Your task to perform on an android device: turn off priority inbox in the gmail app Image 0: 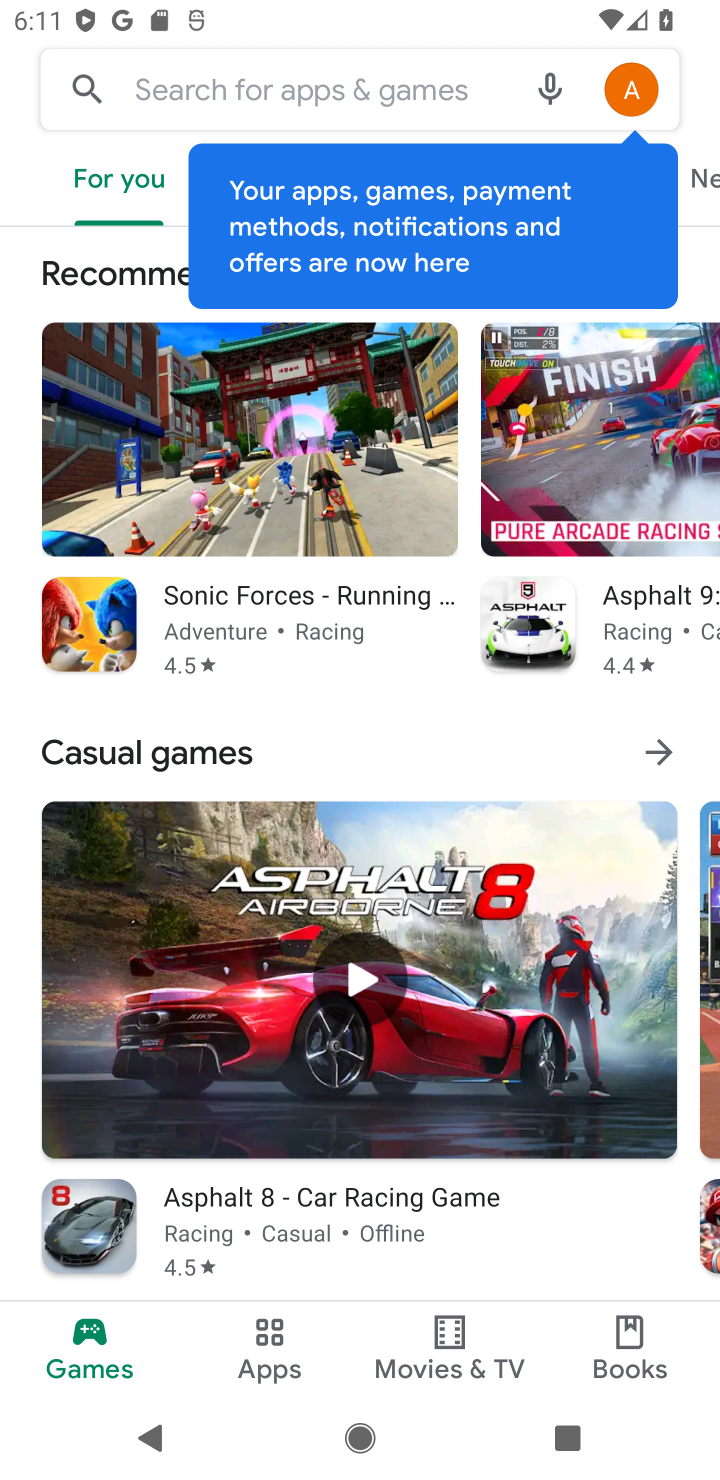
Step 0: press home button
Your task to perform on an android device: turn off priority inbox in the gmail app Image 1: 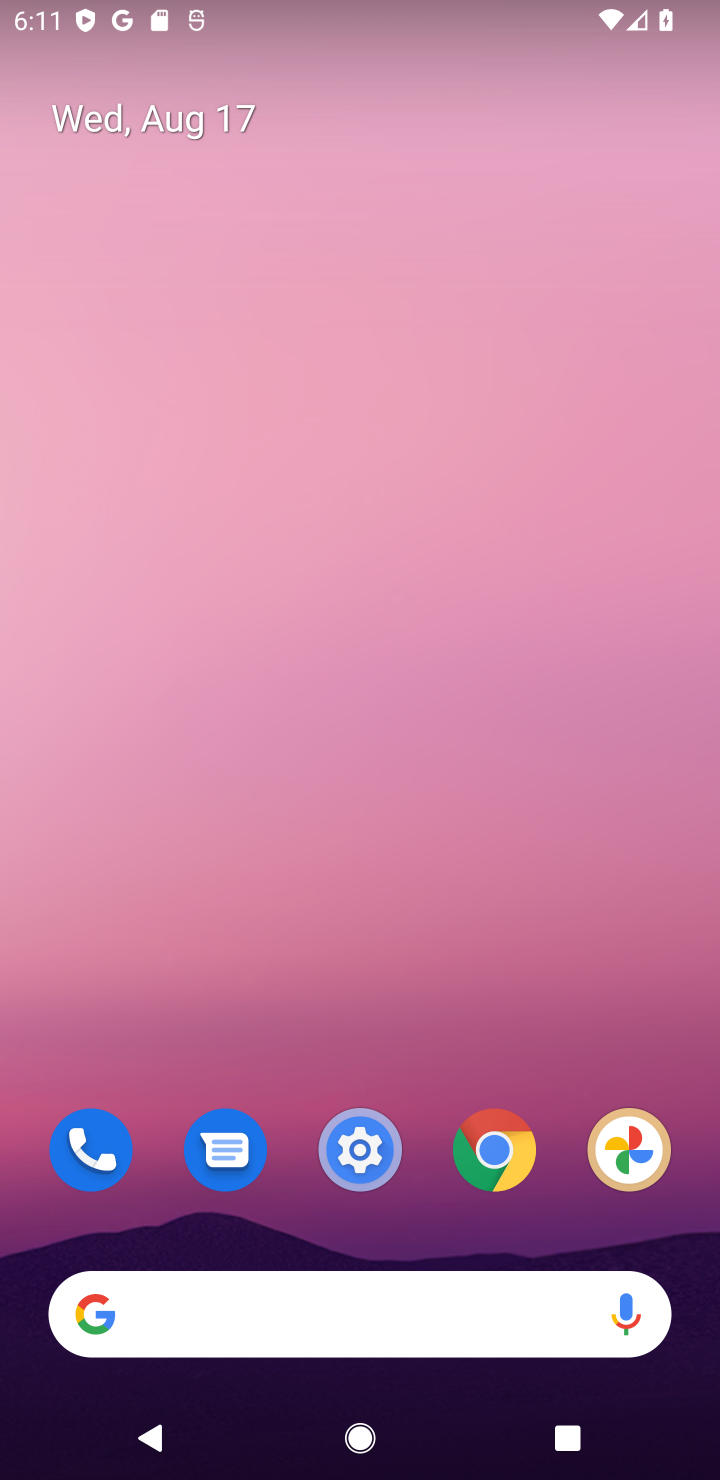
Step 1: drag from (304, 706) to (260, 410)
Your task to perform on an android device: turn off priority inbox in the gmail app Image 2: 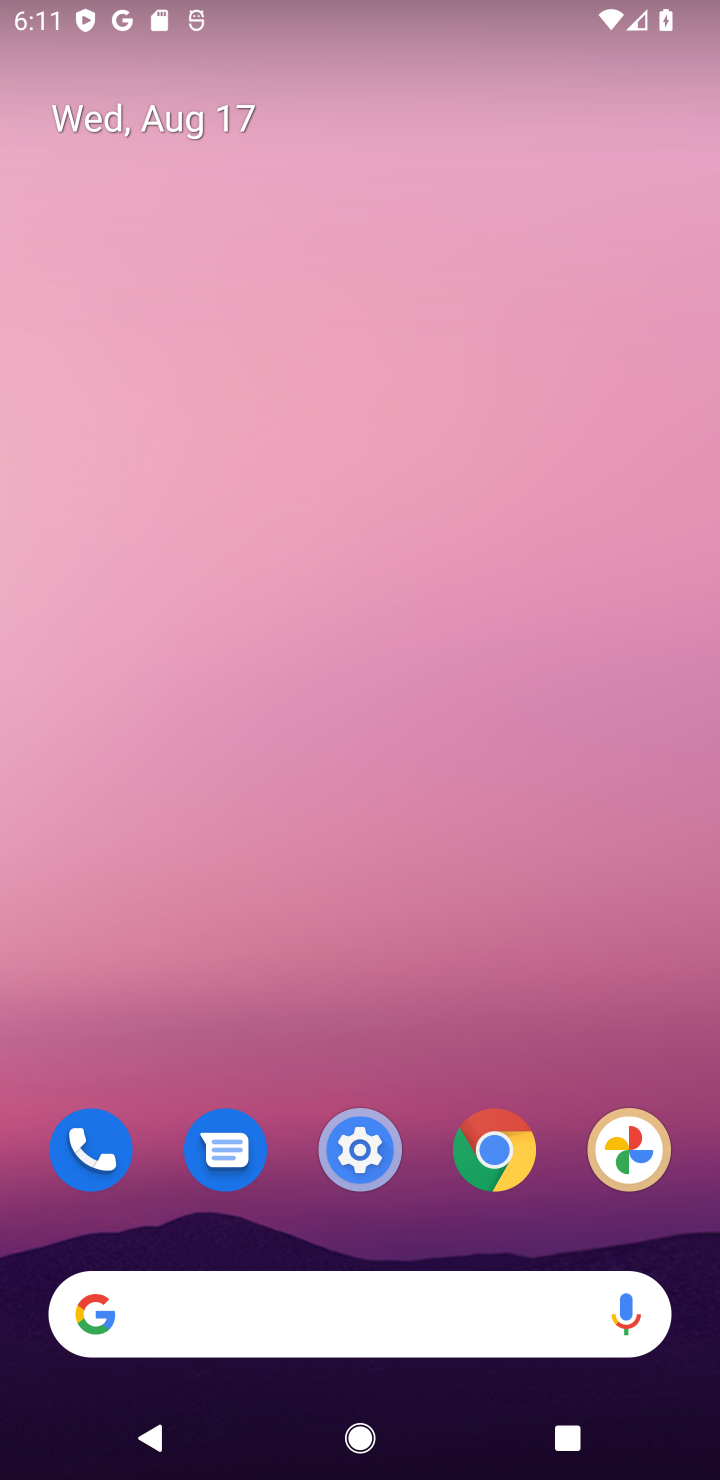
Step 2: drag from (277, 1267) to (271, 474)
Your task to perform on an android device: turn off priority inbox in the gmail app Image 3: 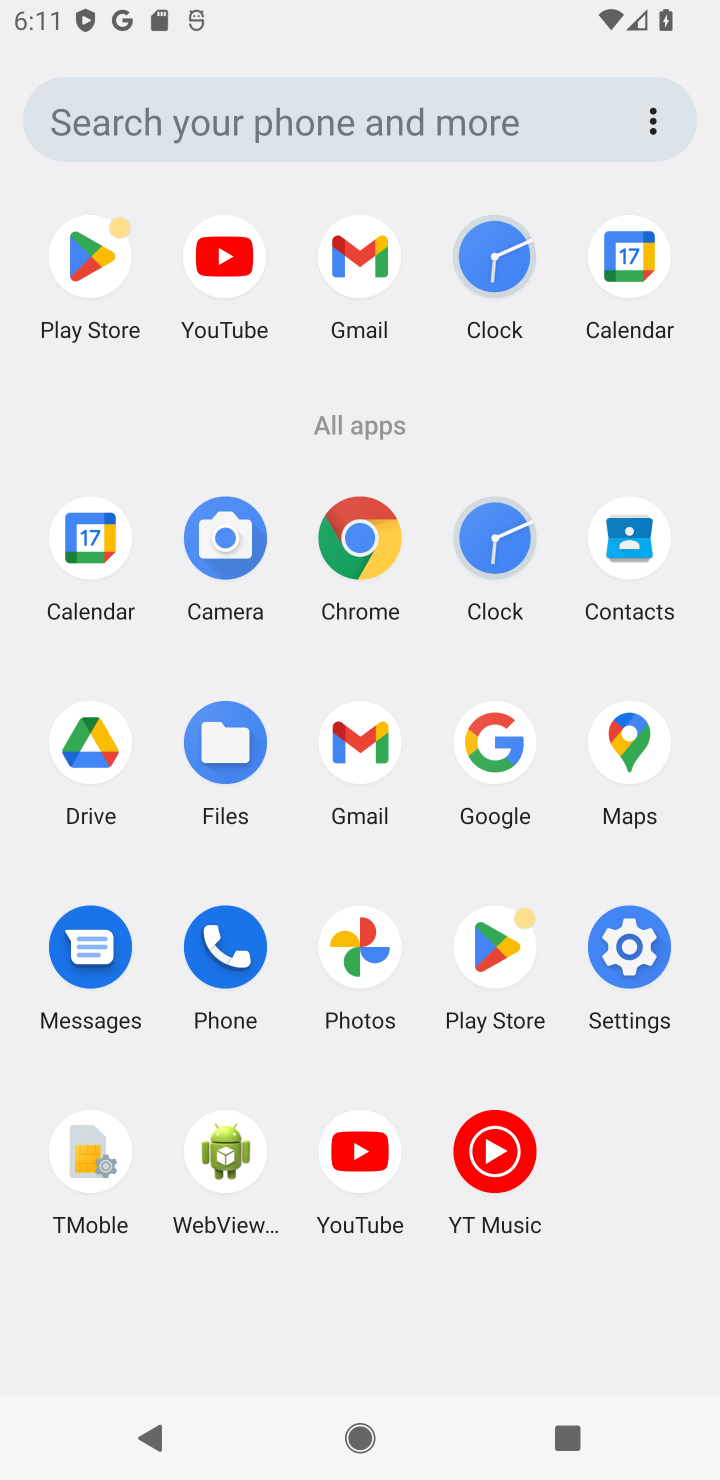
Step 3: click (357, 768)
Your task to perform on an android device: turn off priority inbox in the gmail app Image 4: 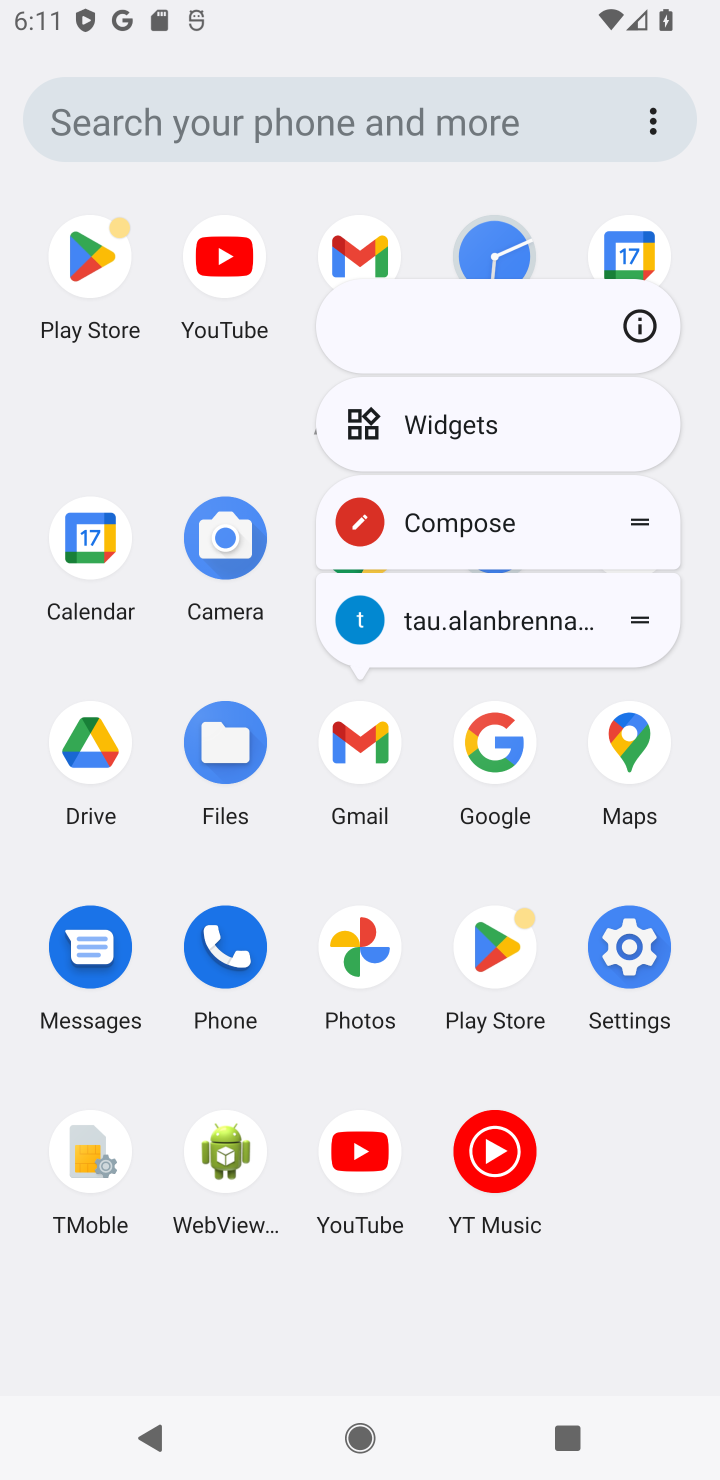
Step 4: click (348, 748)
Your task to perform on an android device: turn off priority inbox in the gmail app Image 5: 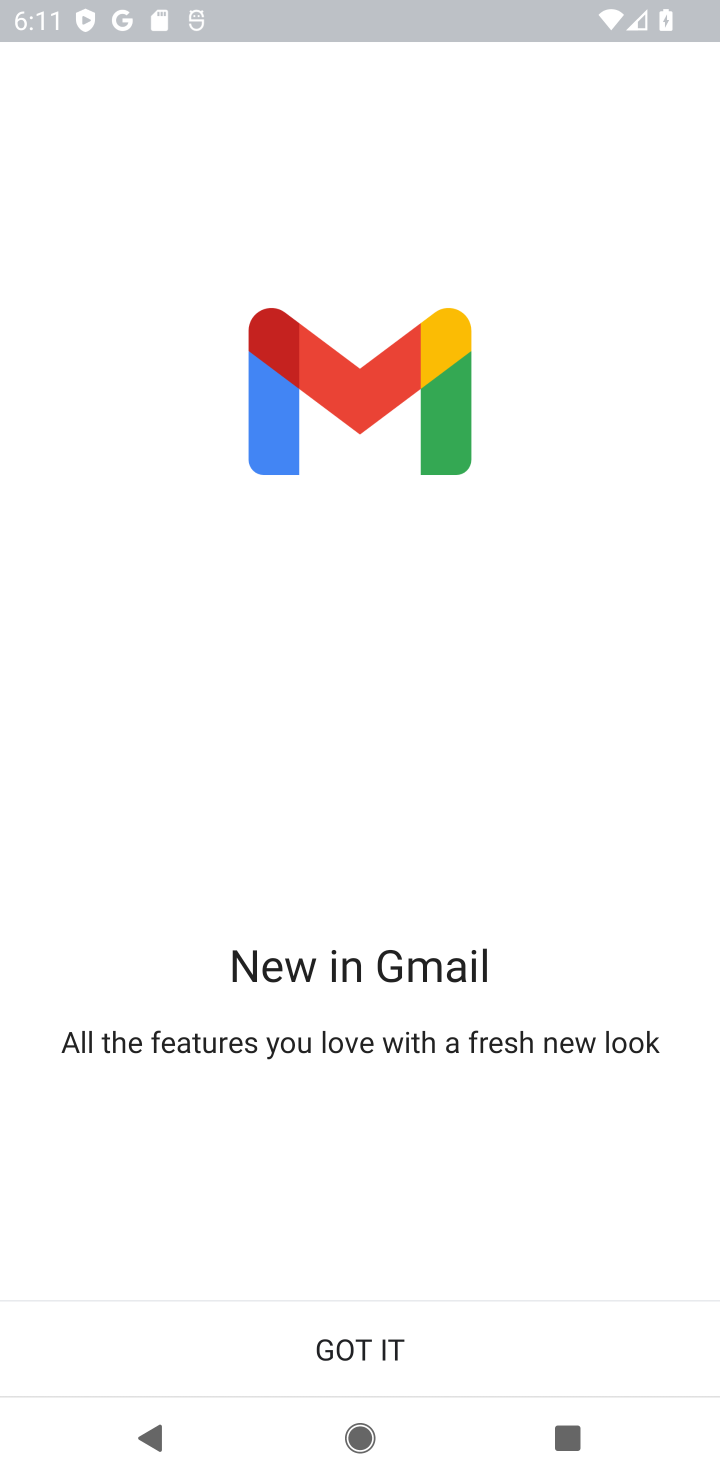
Step 5: click (383, 1338)
Your task to perform on an android device: turn off priority inbox in the gmail app Image 6: 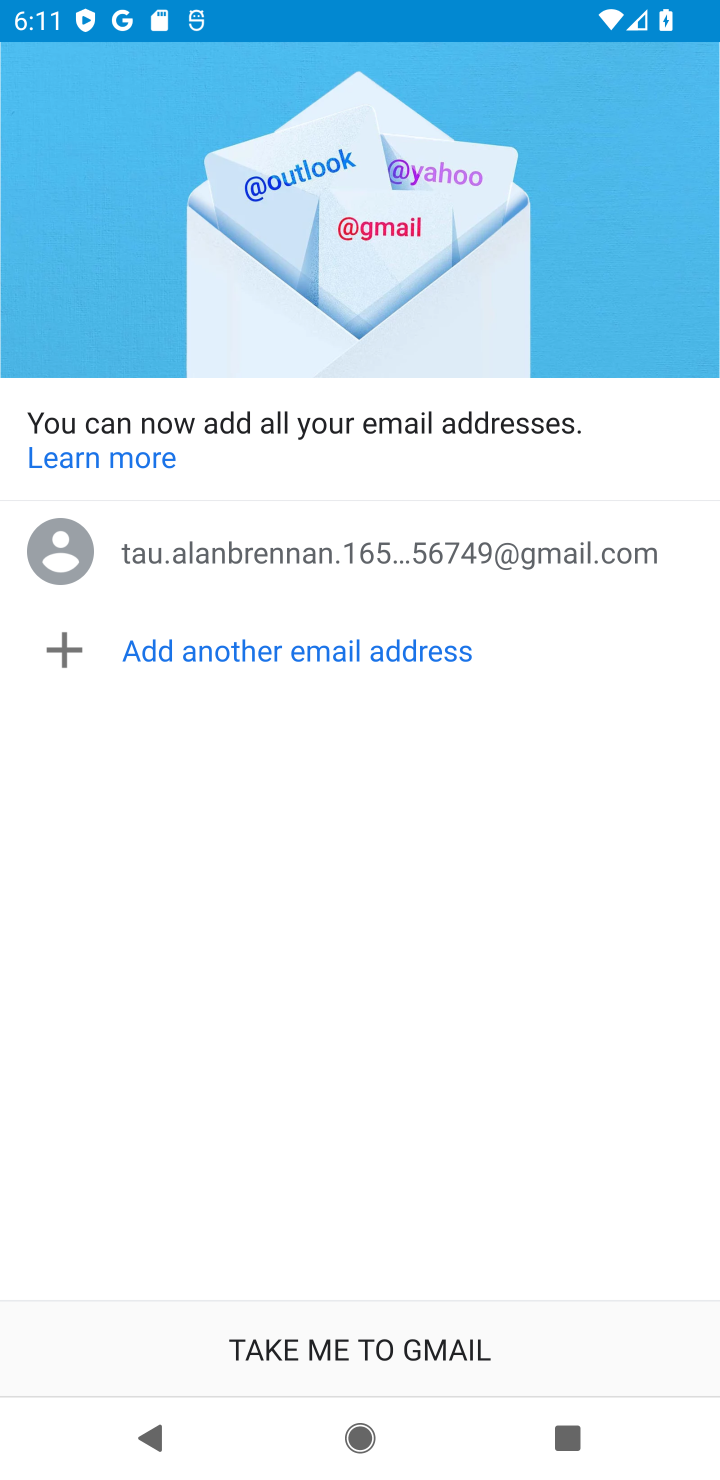
Step 6: click (350, 1327)
Your task to perform on an android device: turn off priority inbox in the gmail app Image 7: 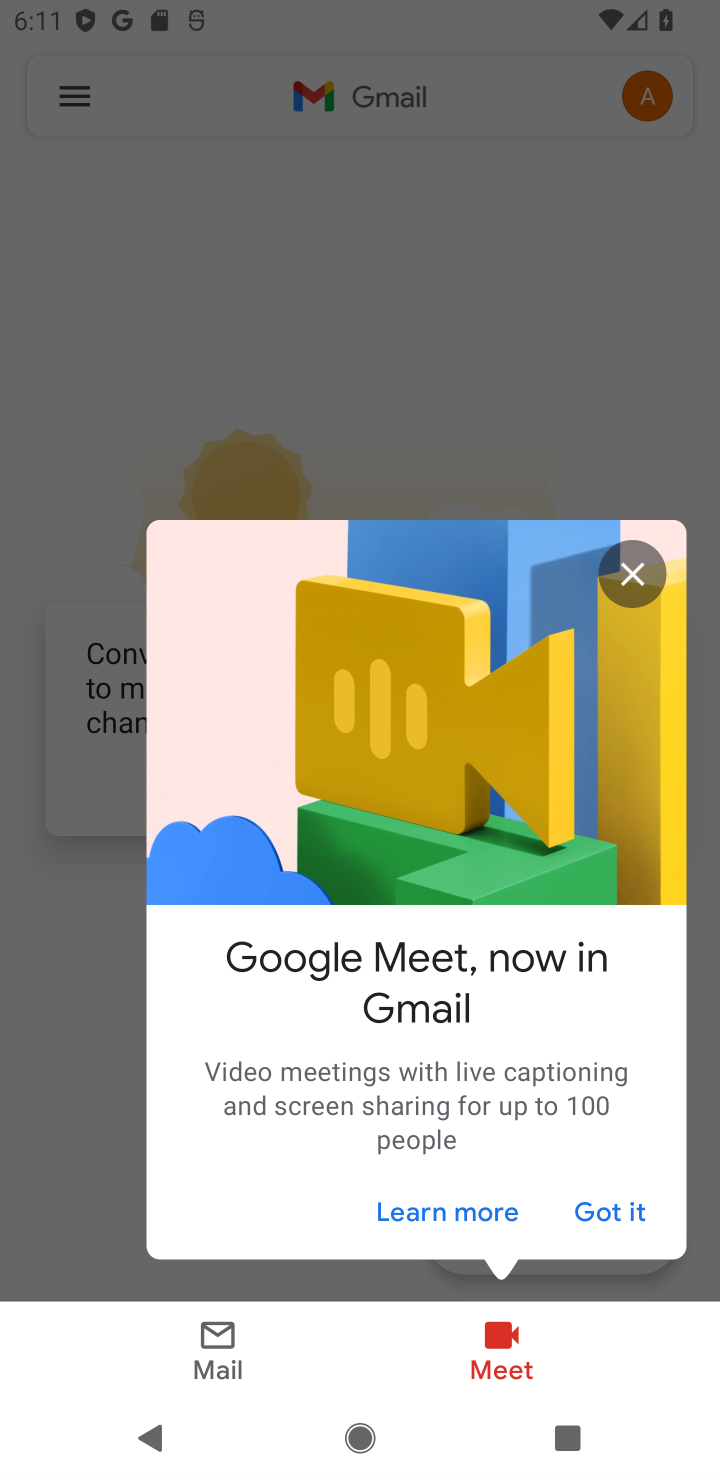
Step 7: click (594, 796)
Your task to perform on an android device: turn off priority inbox in the gmail app Image 8: 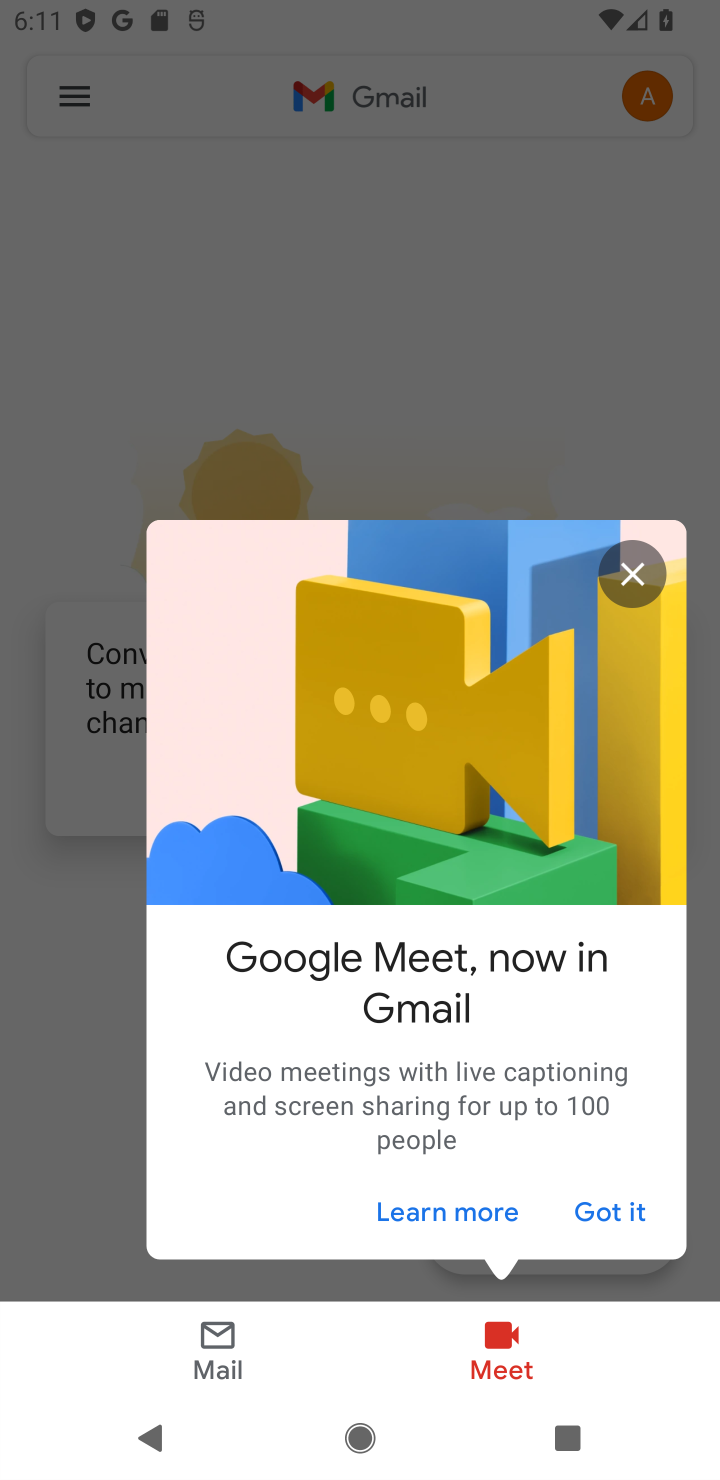
Step 8: click (623, 585)
Your task to perform on an android device: turn off priority inbox in the gmail app Image 9: 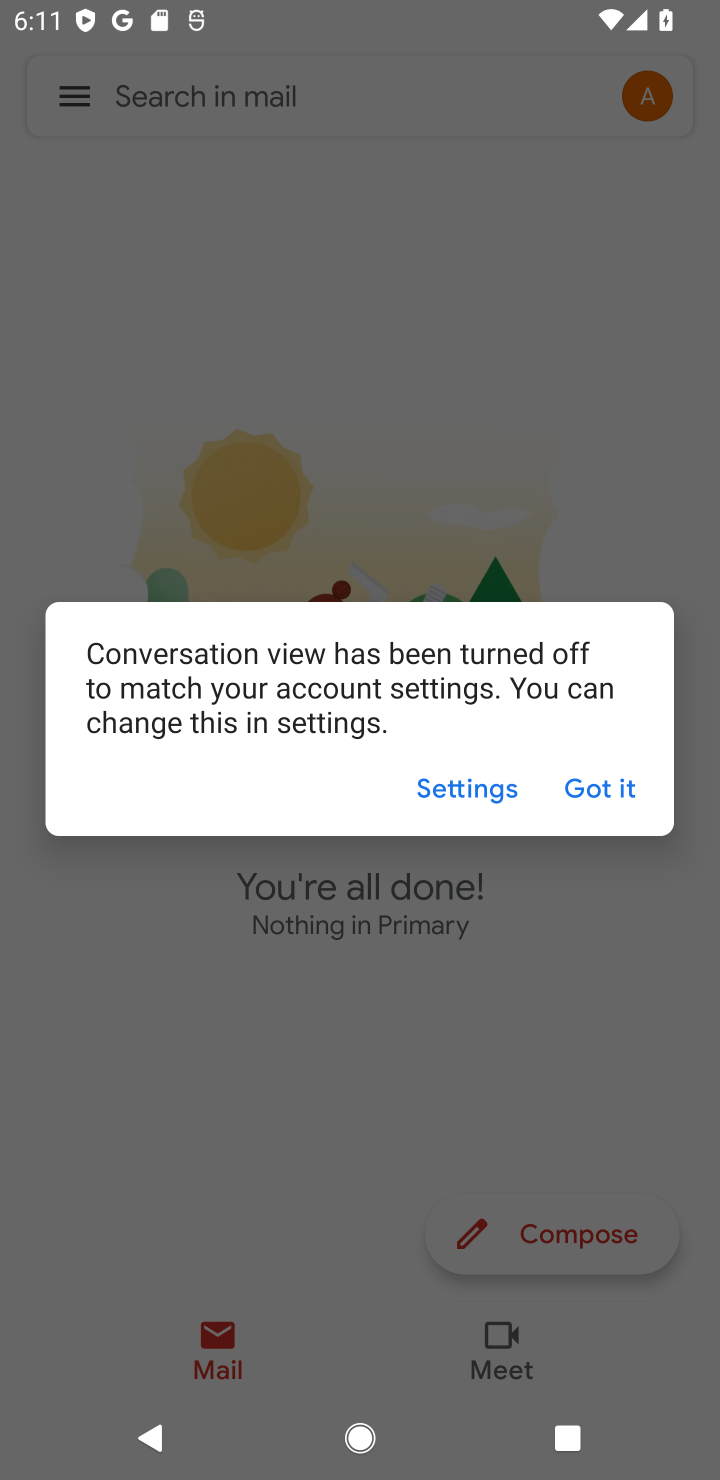
Step 9: click (609, 785)
Your task to perform on an android device: turn off priority inbox in the gmail app Image 10: 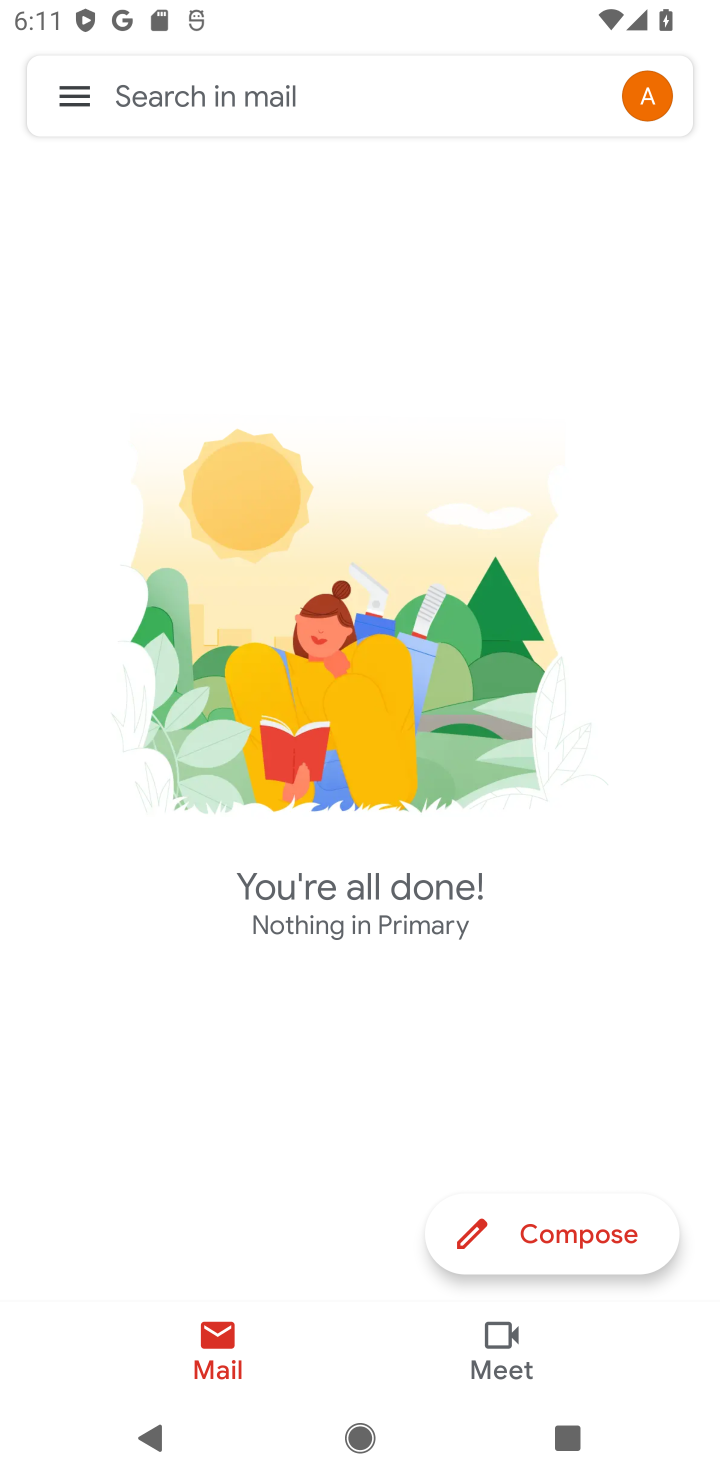
Step 10: click (75, 106)
Your task to perform on an android device: turn off priority inbox in the gmail app Image 11: 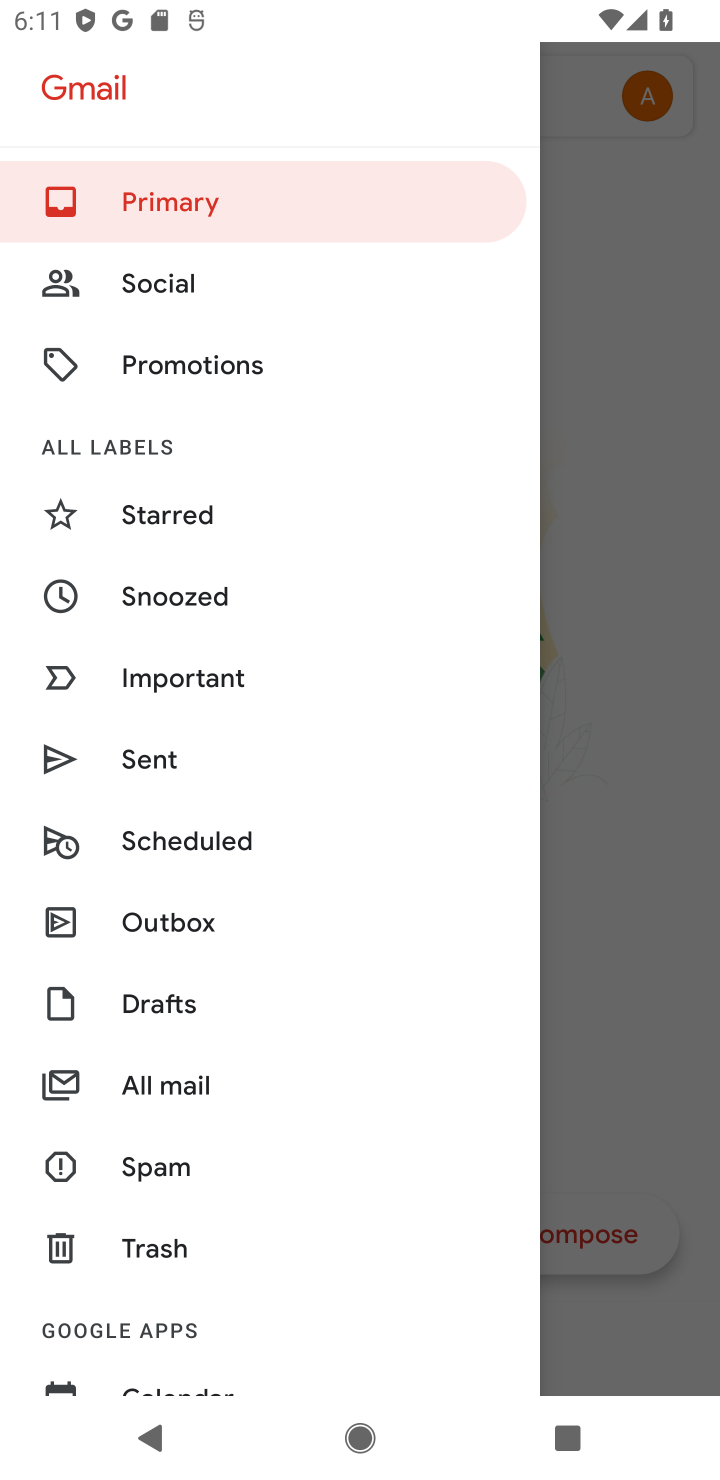
Step 11: drag from (168, 1278) to (168, 275)
Your task to perform on an android device: turn off priority inbox in the gmail app Image 12: 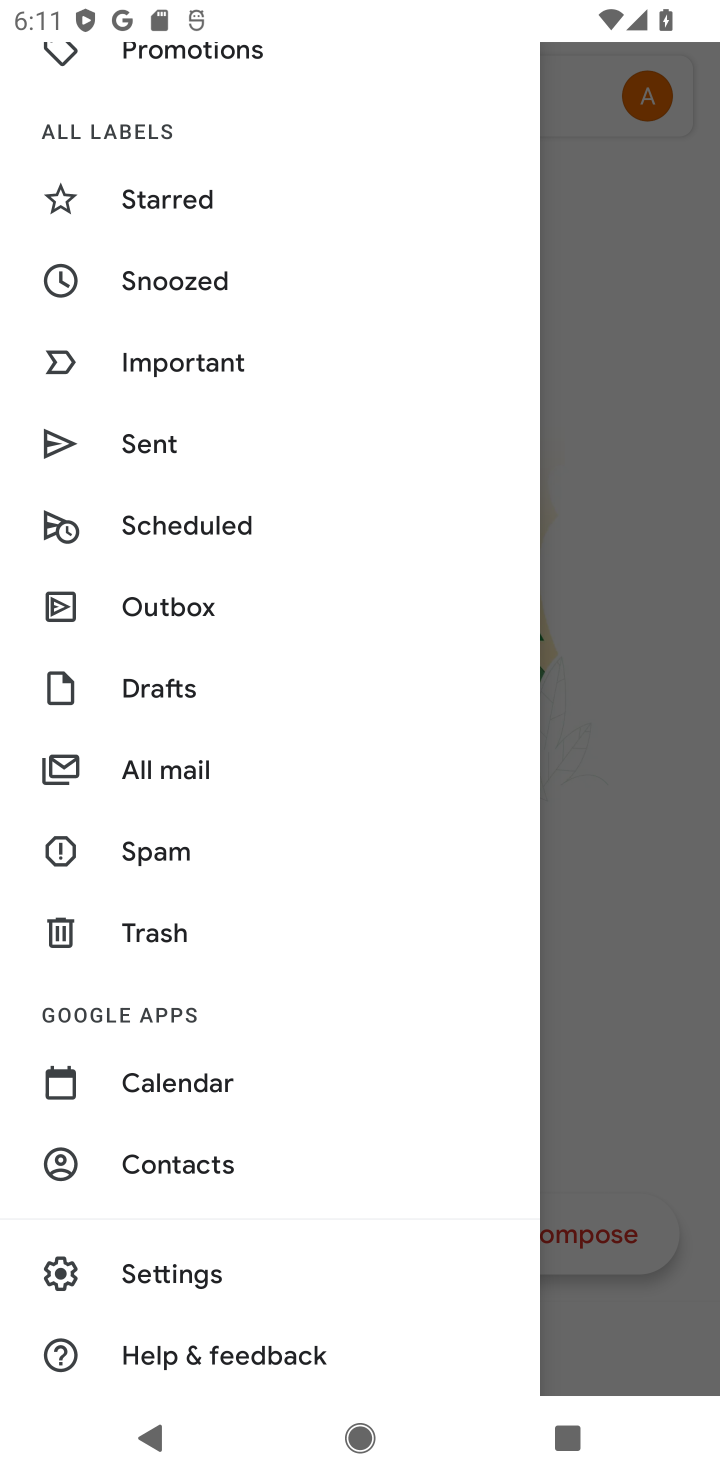
Step 12: click (156, 1259)
Your task to perform on an android device: turn off priority inbox in the gmail app Image 13: 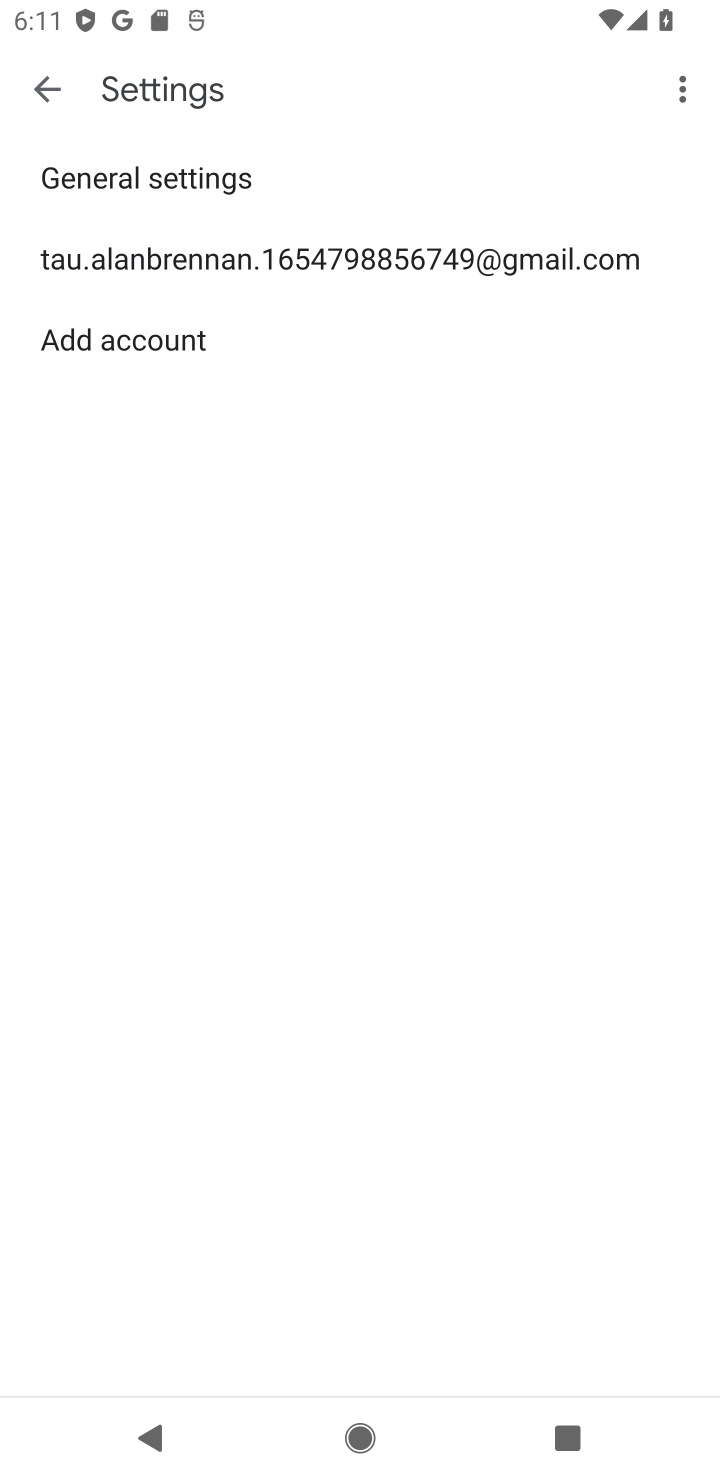
Step 13: click (166, 241)
Your task to perform on an android device: turn off priority inbox in the gmail app Image 14: 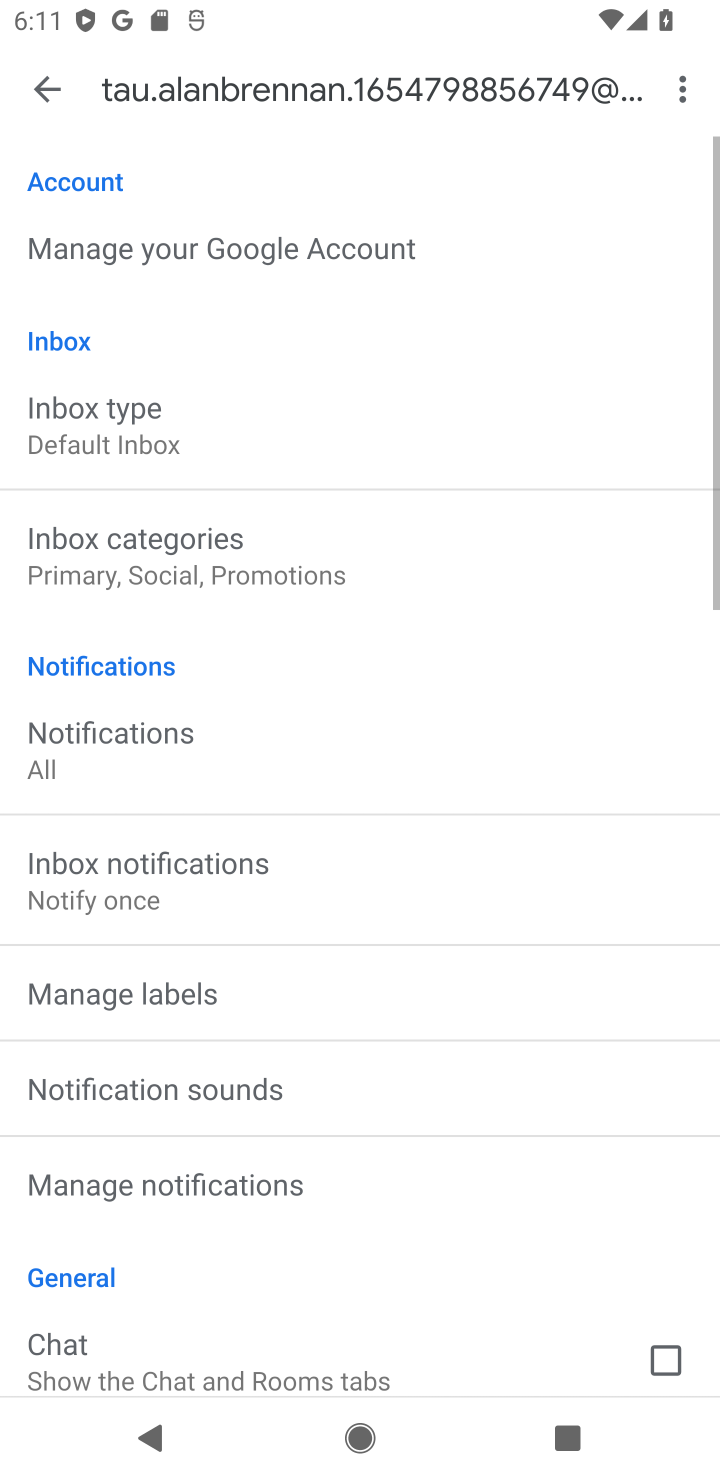
Step 14: click (88, 430)
Your task to perform on an android device: turn off priority inbox in the gmail app Image 15: 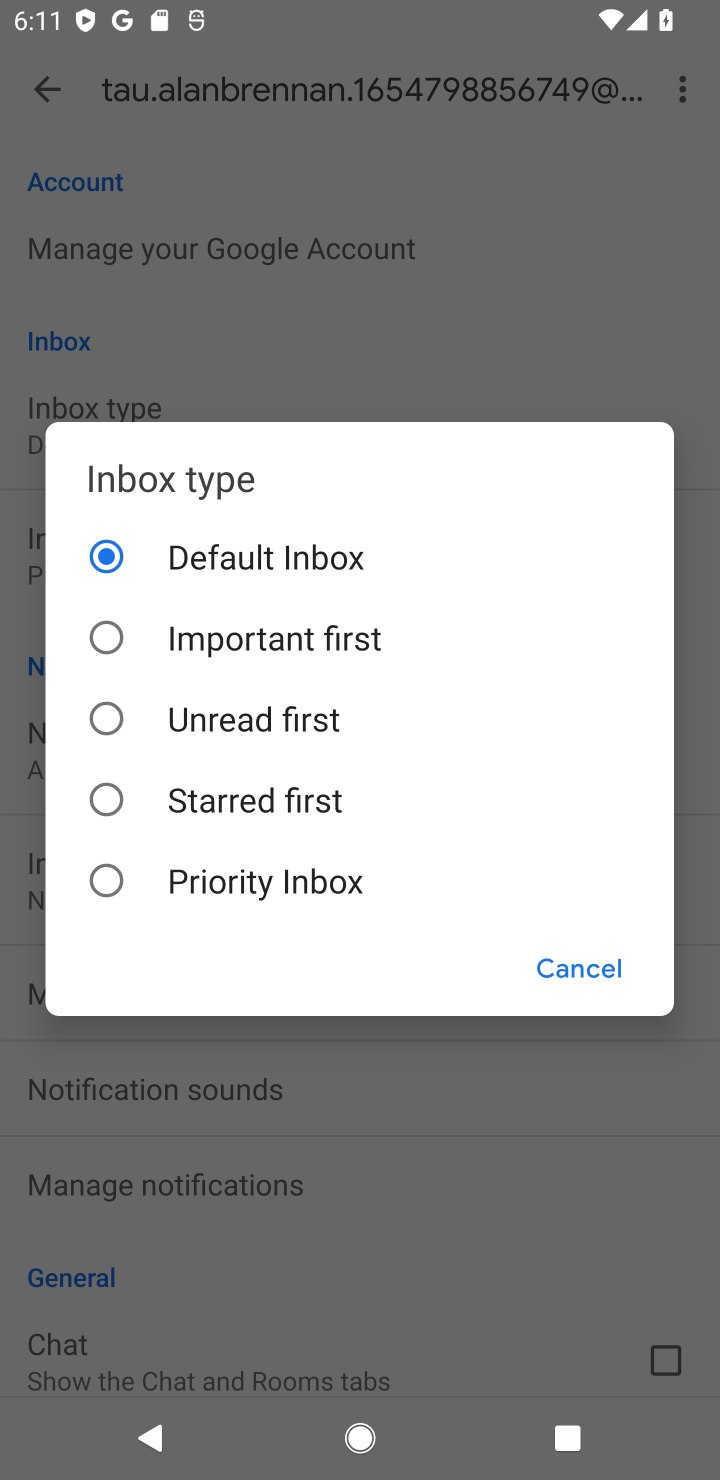
Step 15: click (551, 962)
Your task to perform on an android device: turn off priority inbox in the gmail app Image 16: 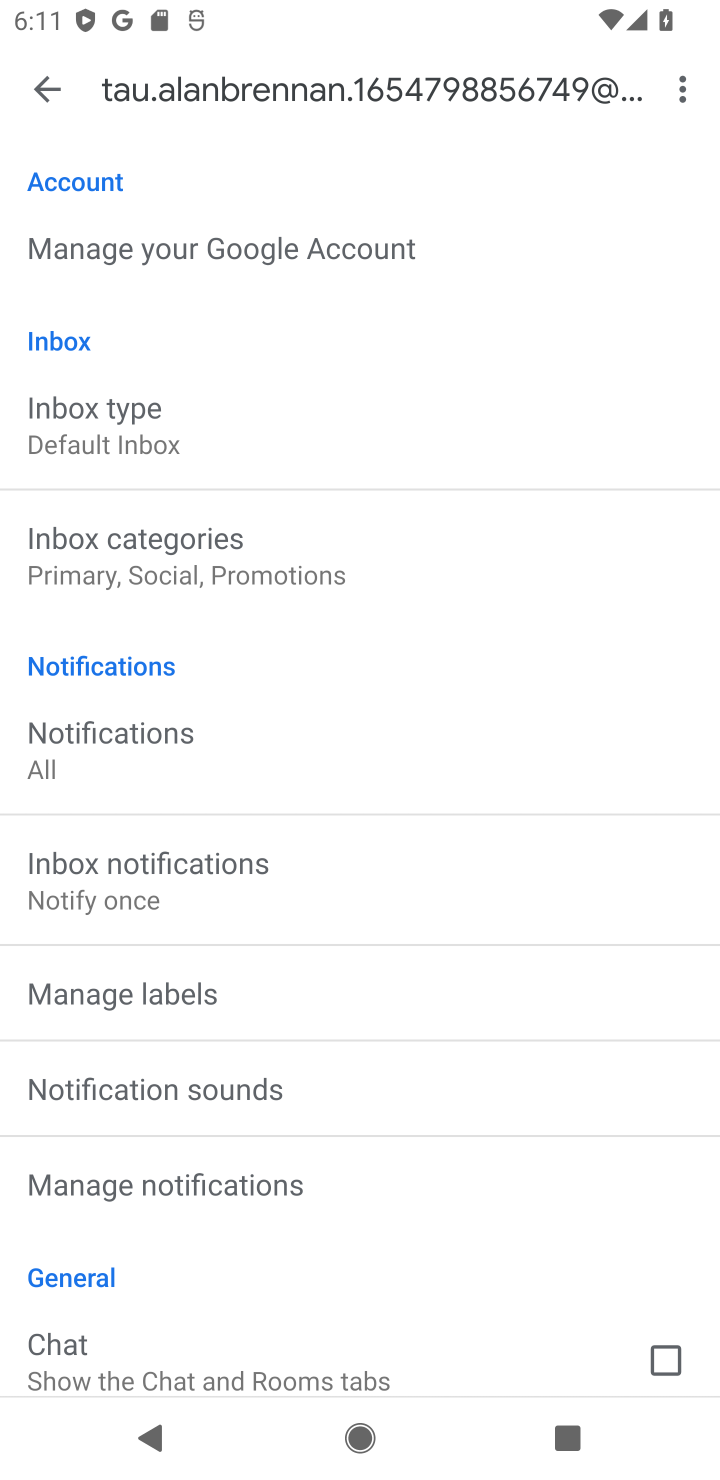
Step 16: task complete